Your task to perform on an android device: Open ESPN.com Image 0: 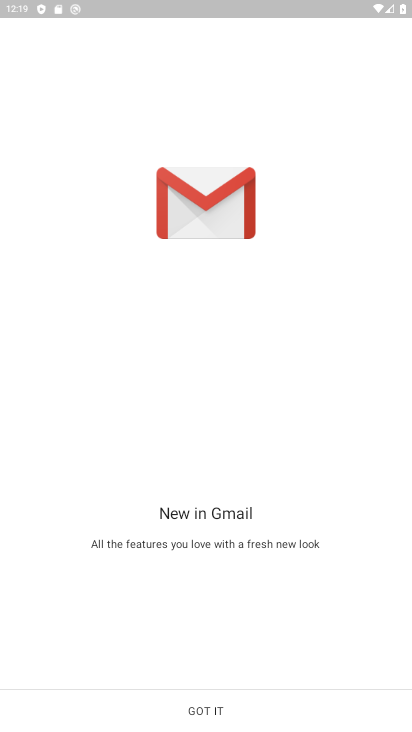
Step 0: press home button
Your task to perform on an android device: Open ESPN.com Image 1: 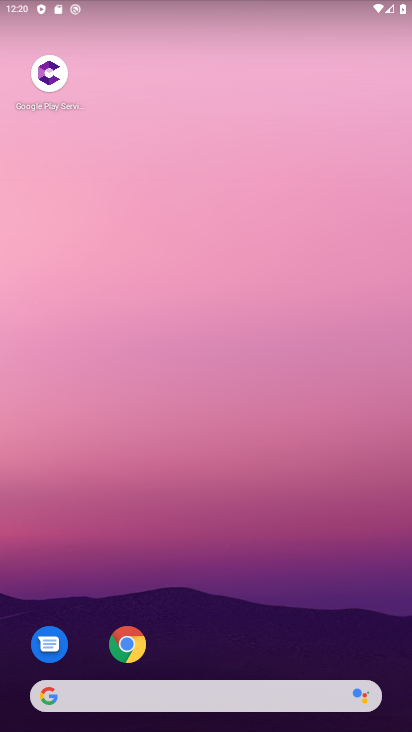
Step 1: click (122, 640)
Your task to perform on an android device: Open ESPN.com Image 2: 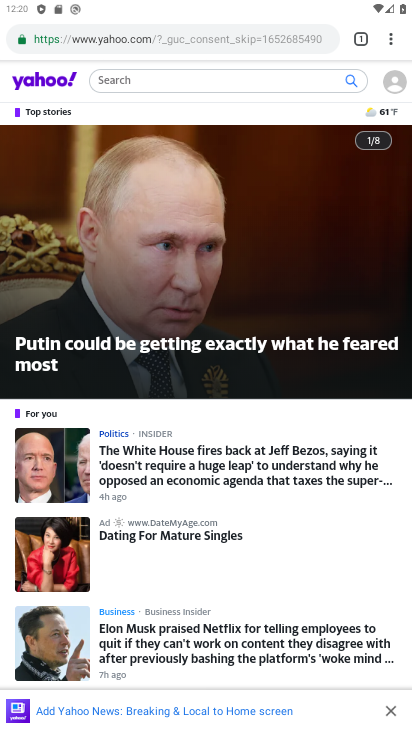
Step 2: click (124, 41)
Your task to perform on an android device: Open ESPN.com Image 3: 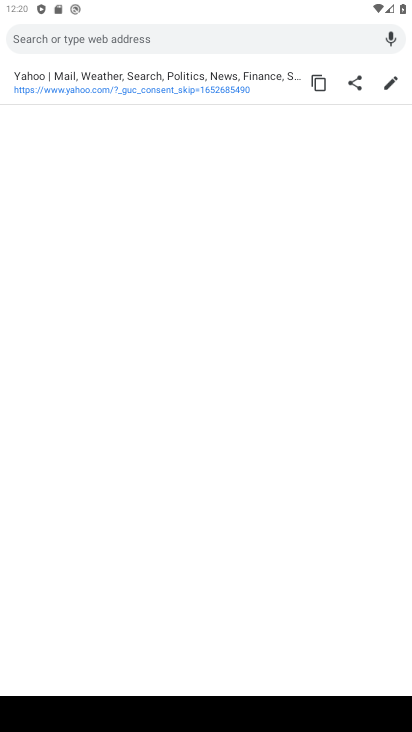
Step 3: type "espn.com"
Your task to perform on an android device: Open ESPN.com Image 4: 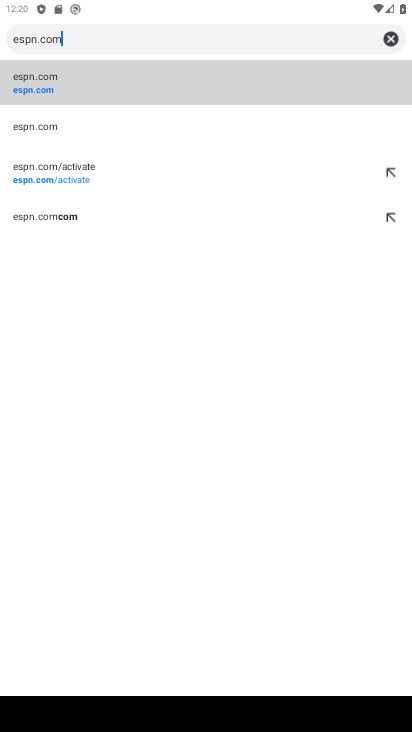
Step 4: click (257, 59)
Your task to perform on an android device: Open ESPN.com Image 5: 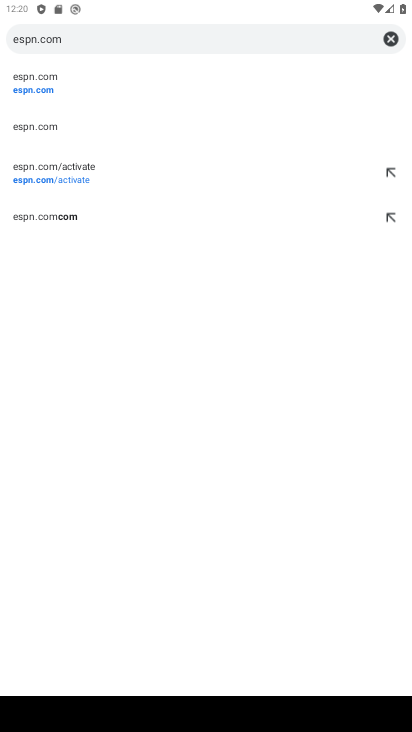
Step 5: click (246, 71)
Your task to perform on an android device: Open ESPN.com Image 6: 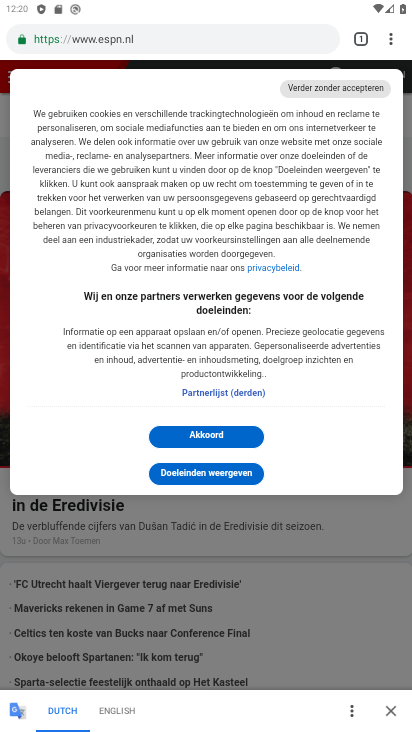
Step 6: task complete